Your task to perform on an android device: delete a single message in the gmail app Image 0: 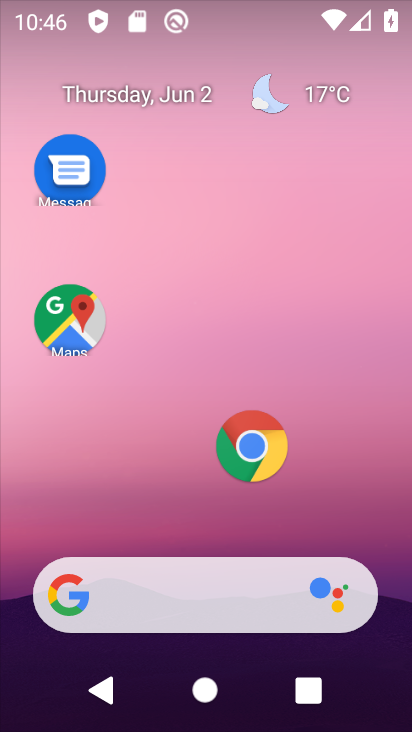
Step 0: press home button
Your task to perform on an android device: delete a single message in the gmail app Image 1: 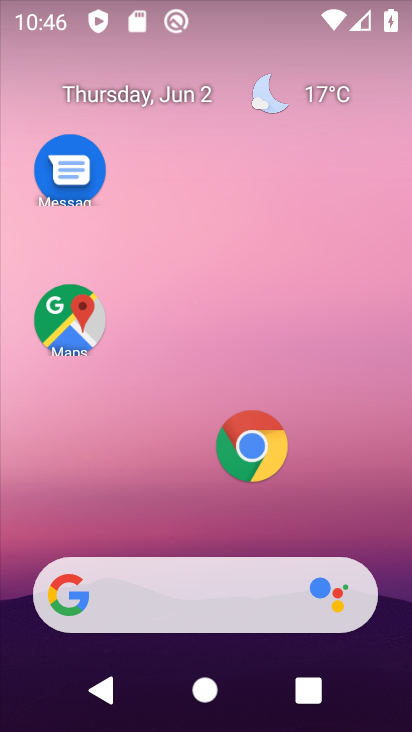
Step 1: drag from (356, 518) to (283, 160)
Your task to perform on an android device: delete a single message in the gmail app Image 2: 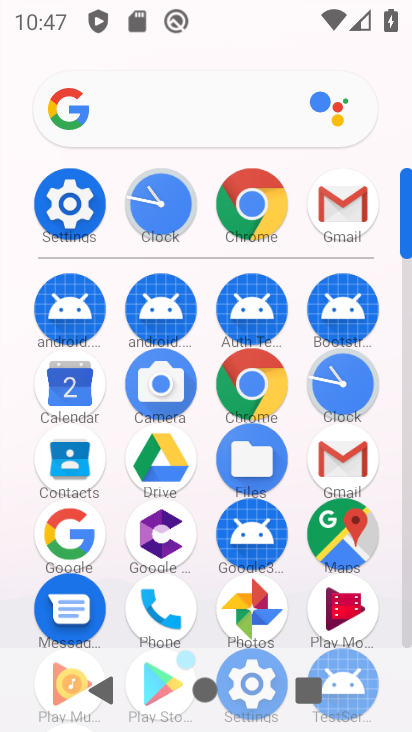
Step 2: click (319, 463)
Your task to perform on an android device: delete a single message in the gmail app Image 3: 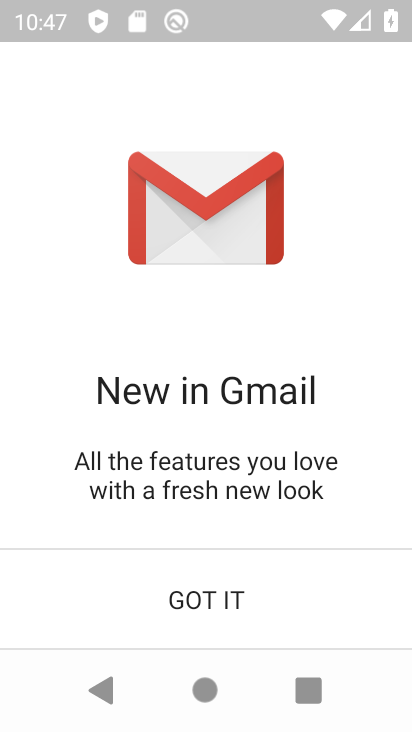
Step 3: click (268, 587)
Your task to perform on an android device: delete a single message in the gmail app Image 4: 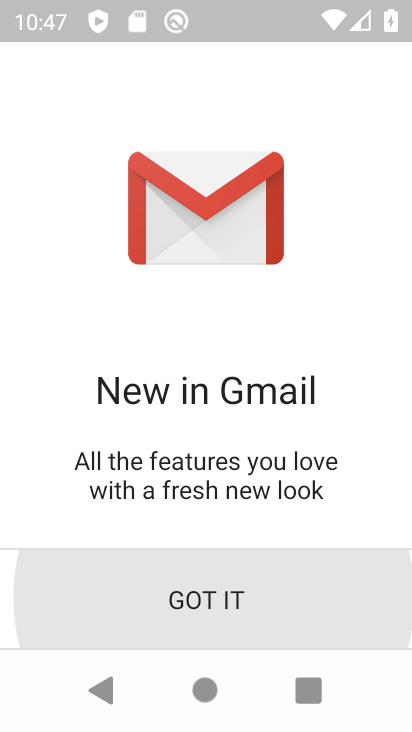
Step 4: click (268, 587)
Your task to perform on an android device: delete a single message in the gmail app Image 5: 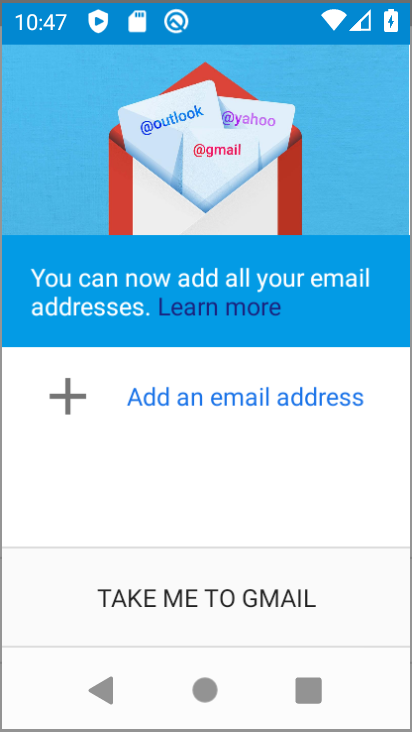
Step 5: click (268, 587)
Your task to perform on an android device: delete a single message in the gmail app Image 6: 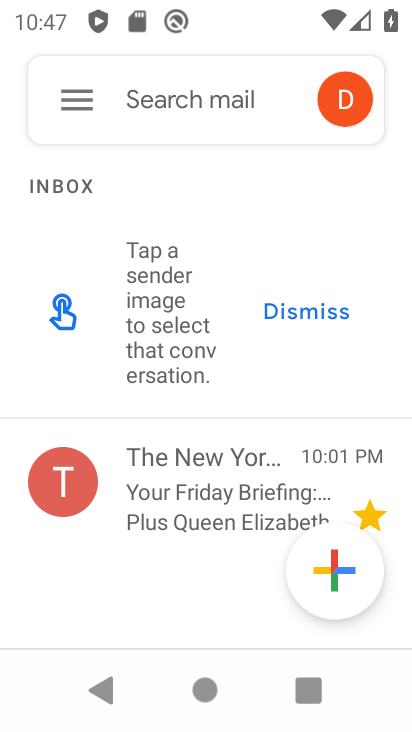
Step 6: click (175, 454)
Your task to perform on an android device: delete a single message in the gmail app Image 7: 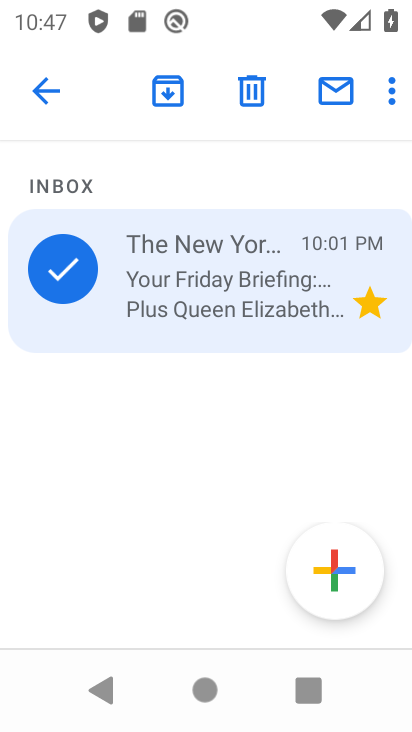
Step 7: click (243, 92)
Your task to perform on an android device: delete a single message in the gmail app Image 8: 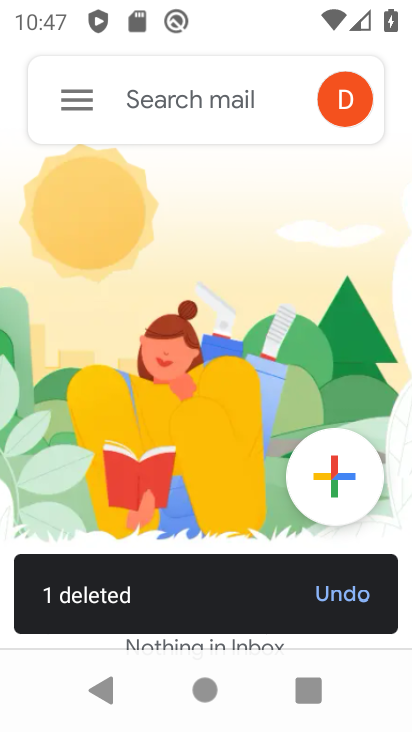
Step 8: task complete